Your task to perform on an android device: Do I have any events tomorrow? Image 0: 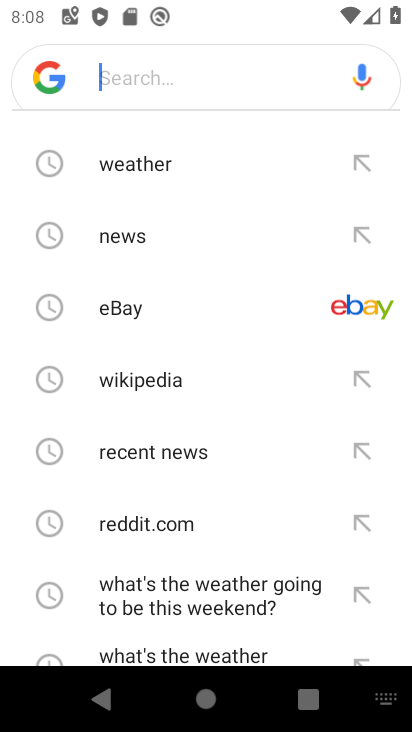
Step 0: press home button
Your task to perform on an android device: Do I have any events tomorrow? Image 1: 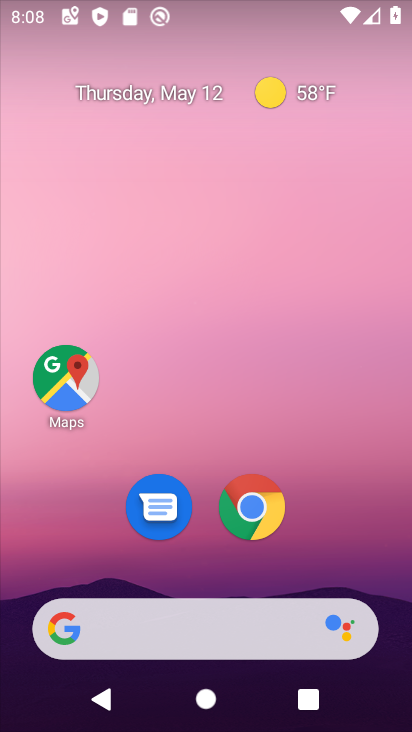
Step 1: drag from (187, 574) to (203, 151)
Your task to perform on an android device: Do I have any events tomorrow? Image 2: 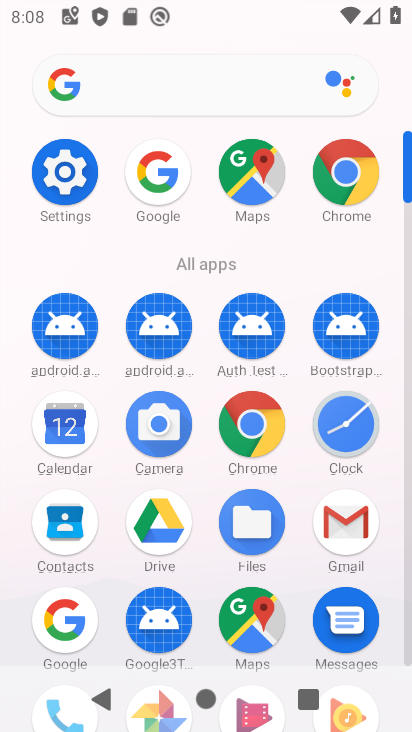
Step 2: click (60, 447)
Your task to perform on an android device: Do I have any events tomorrow? Image 3: 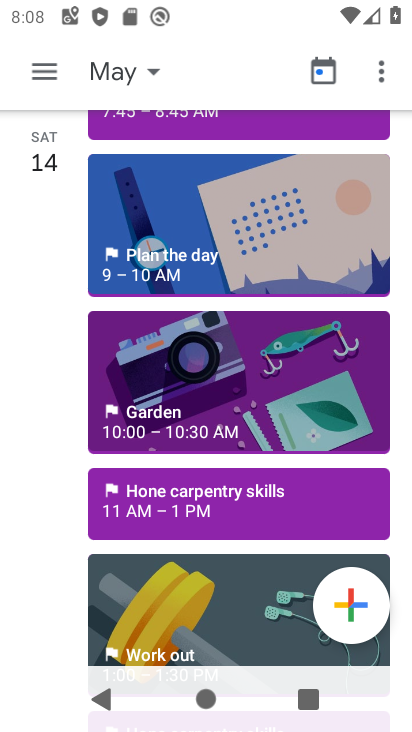
Step 3: click (152, 62)
Your task to perform on an android device: Do I have any events tomorrow? Image 4: 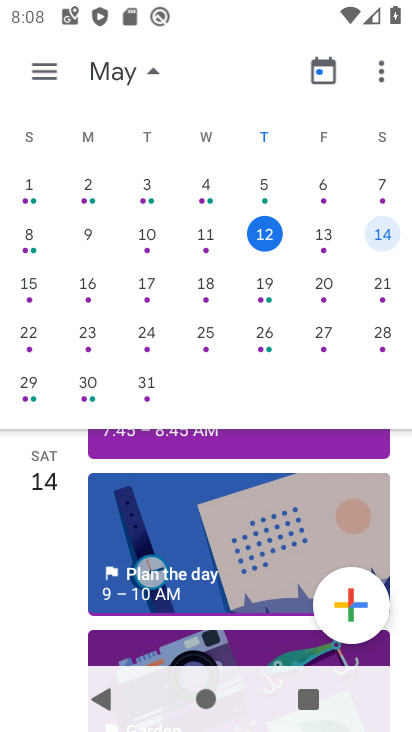
Step 4: click (314, 225)
Your task to perform on an android device: Do I have any events tomorrow? Image 5: 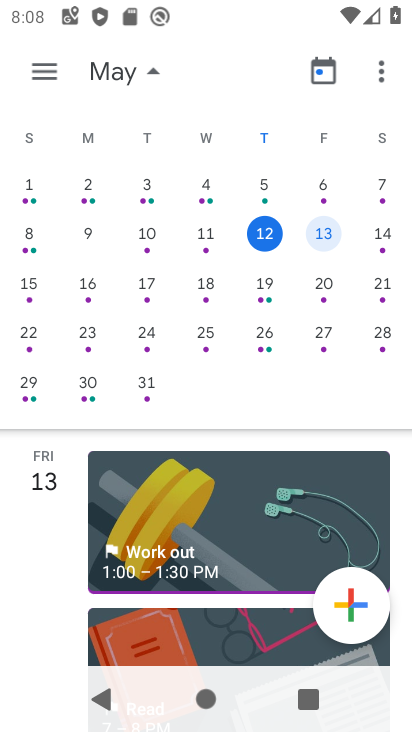
Step 5: click (314, 225)
Your task to perform on an android device: Do I have any events tomorrow? Image 6: 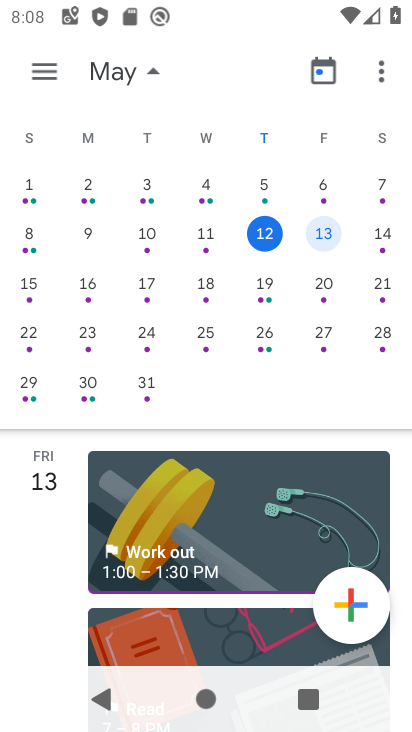
Step 6: click (314, 225)
Your task to perform on an android device: Do I have any events tomorrow? Image 7: 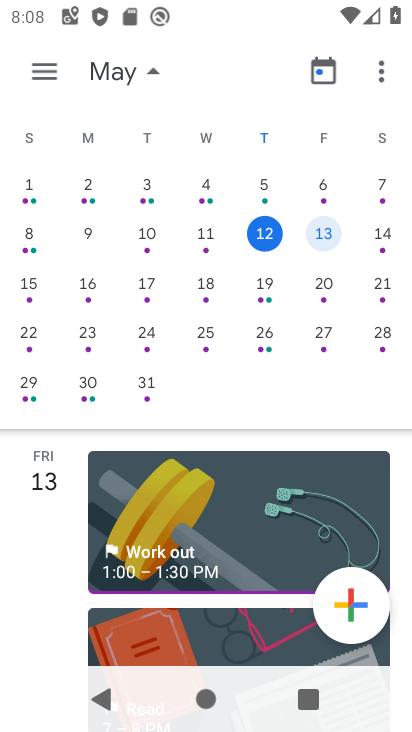
Step 7: task complete